Your task to perform on an android device: turn off airplane mode Image 0: 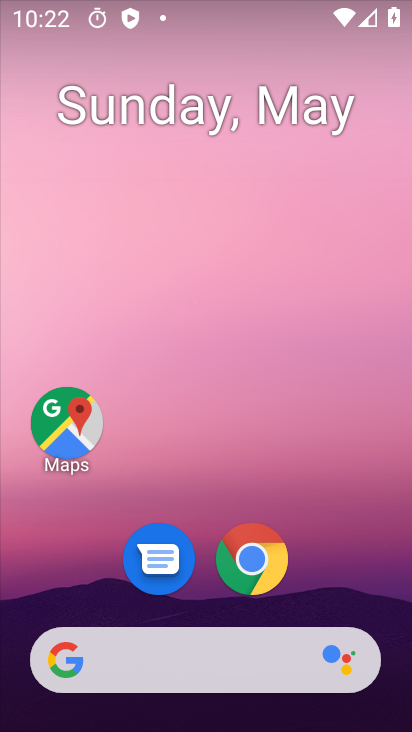
Step 0: drag from (376, 496) to (341, 48)
Your task to perform on an android device: turn off airplane mode Image 1: 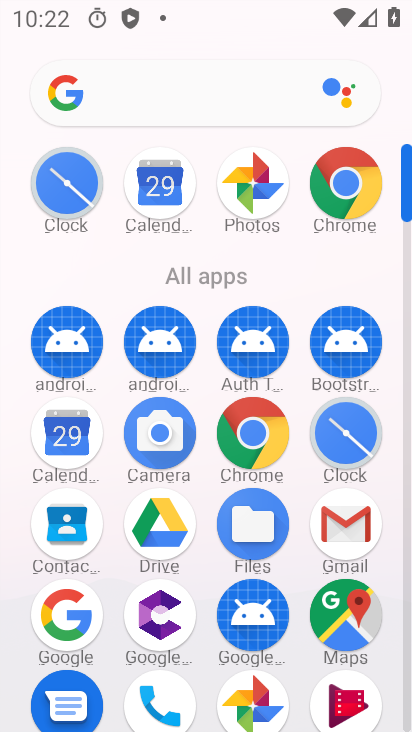
Step 1: drag from (293, 645) to (278, 282)
Your task to perform on an android device: turn off airplane mode Image 2: 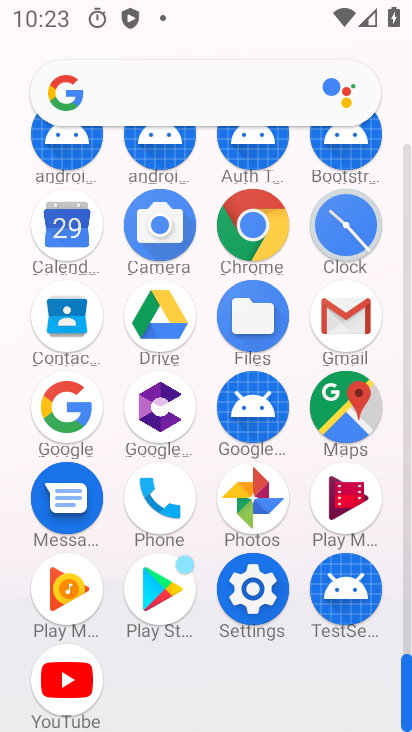
Step 2: drag from (289, 633) to (282, 242)
Your task to perform on an android device: turn off airplane mode Image 3: 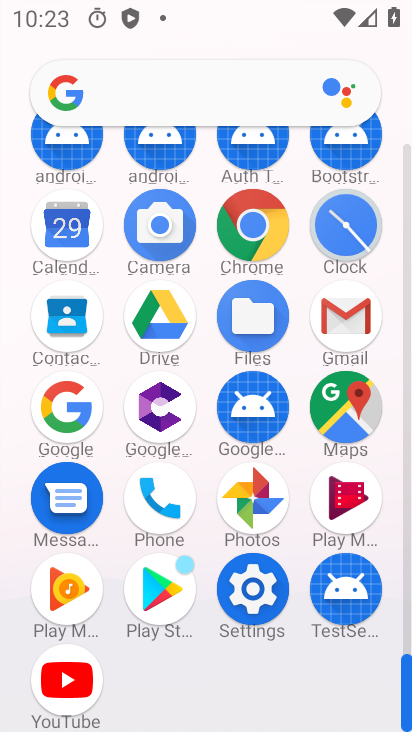
Step 3: click (259, 604)
Your task to perform on an android device: turn off airplane mode Image 4: 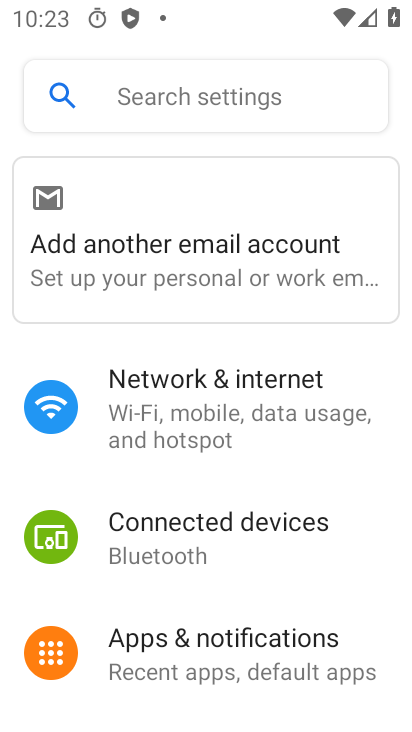
Step 4: click (236, 401)
Your task to perform on an android device: turn off airplane mode Image 5: 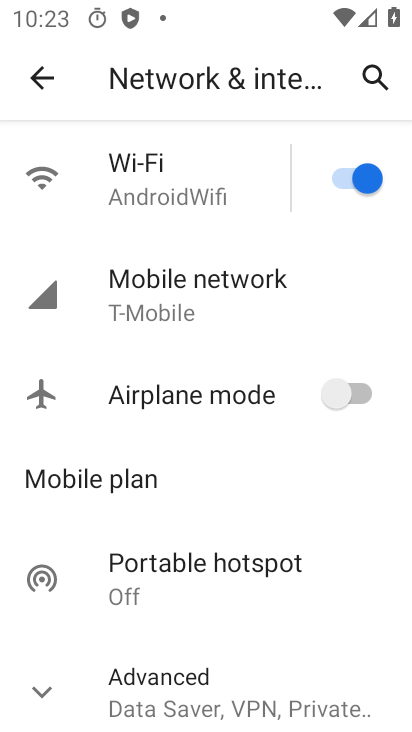
Step 5: task complete